Your task to perform on an android device: uninstall "Google Chat" Image 0: 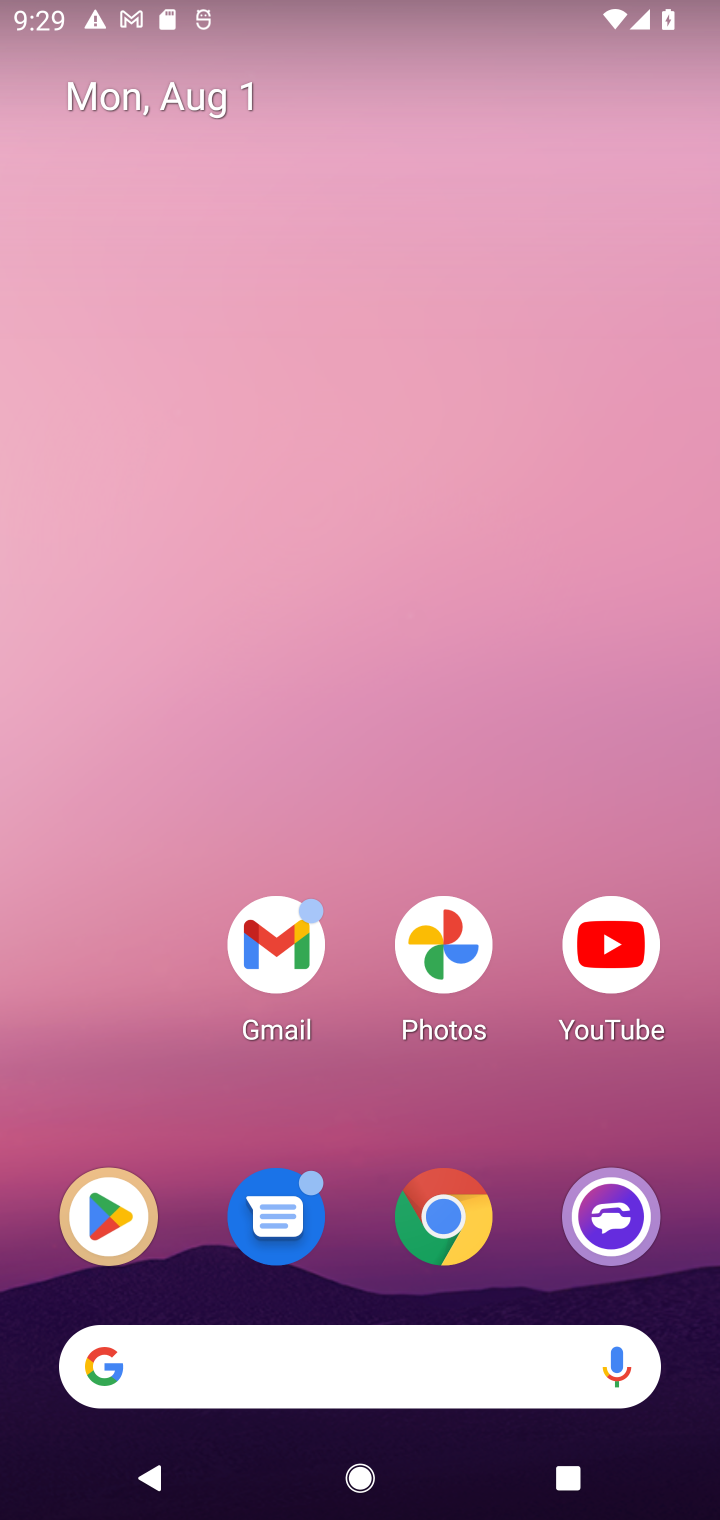
Step 0: press home button
Your task to perform on an android device: uninstall "Google Chat" Image 1: 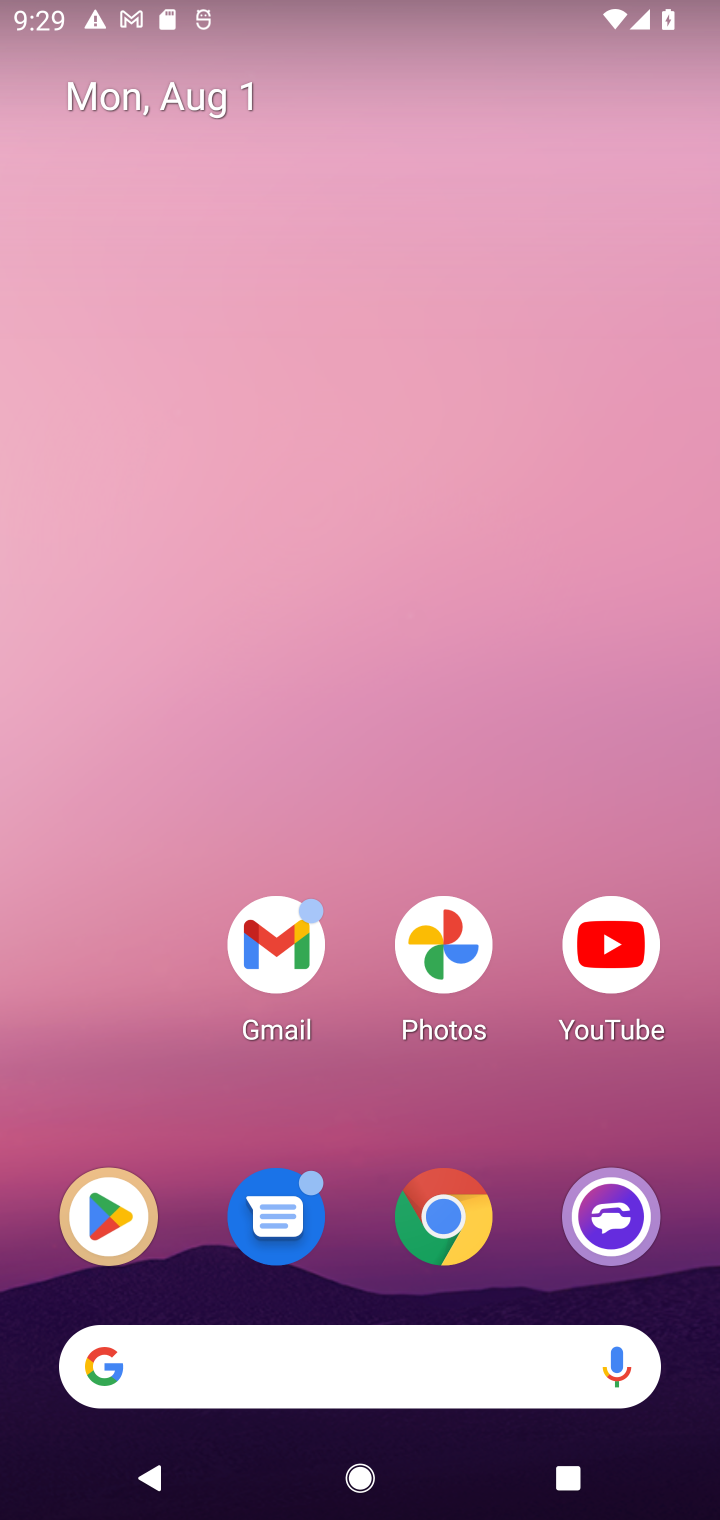
Step 1: click (129, 1234)
Your task to perform on an android device: uninstall "Google Chat" Image 2: 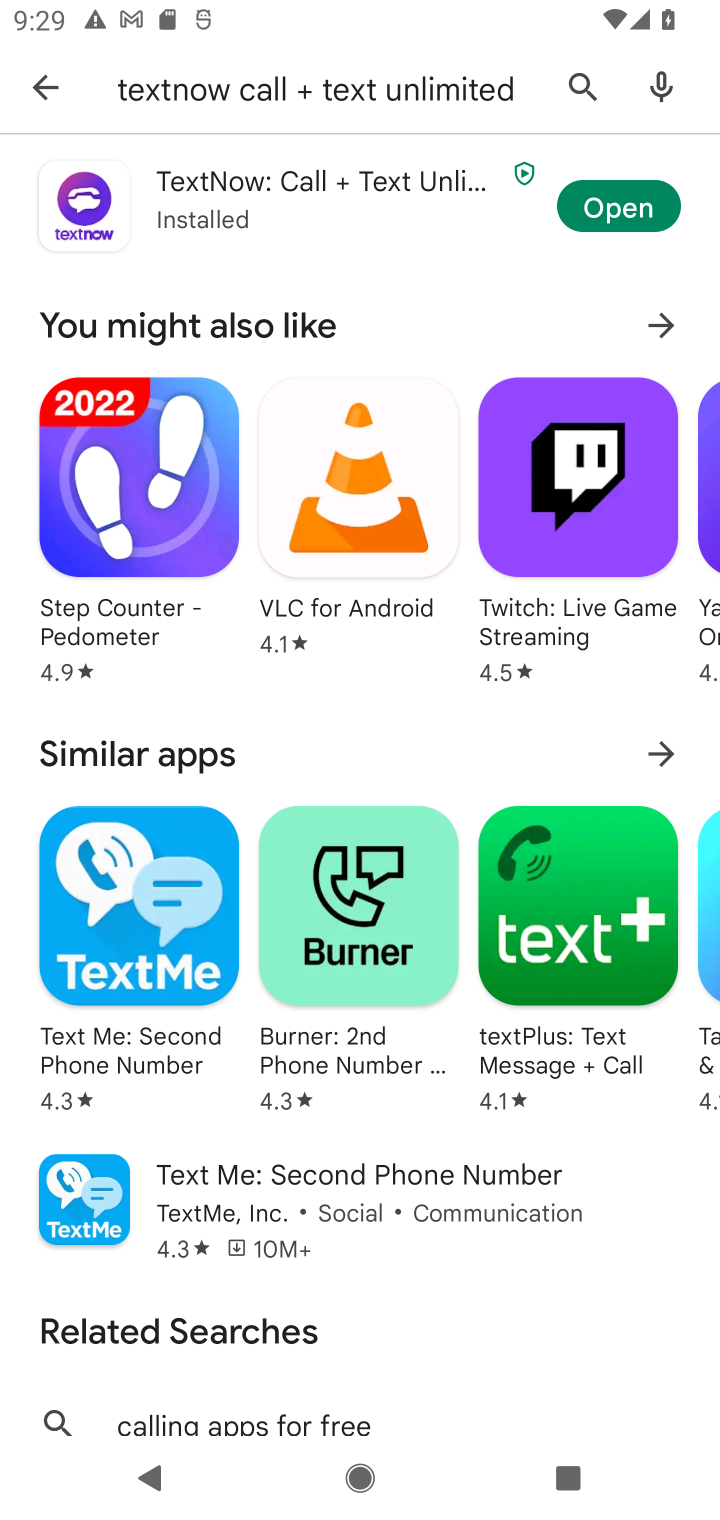
Step 2: click (584, 75)
Your task to perform on an android device: uninstall "Google Chat" Image 3: 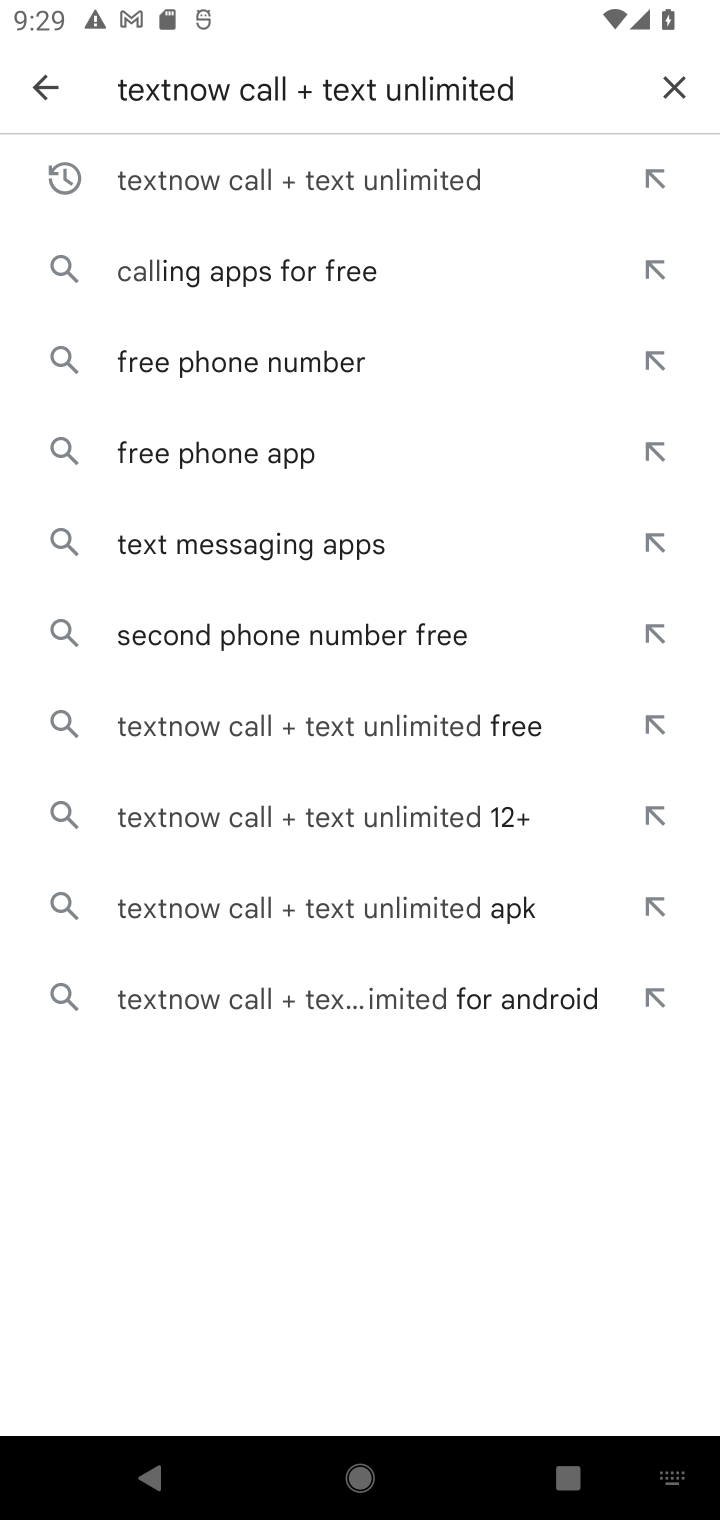
Step 3: click (675, 93)
Your task to perform on an android device: uninstall "Google Chat" Image 4: 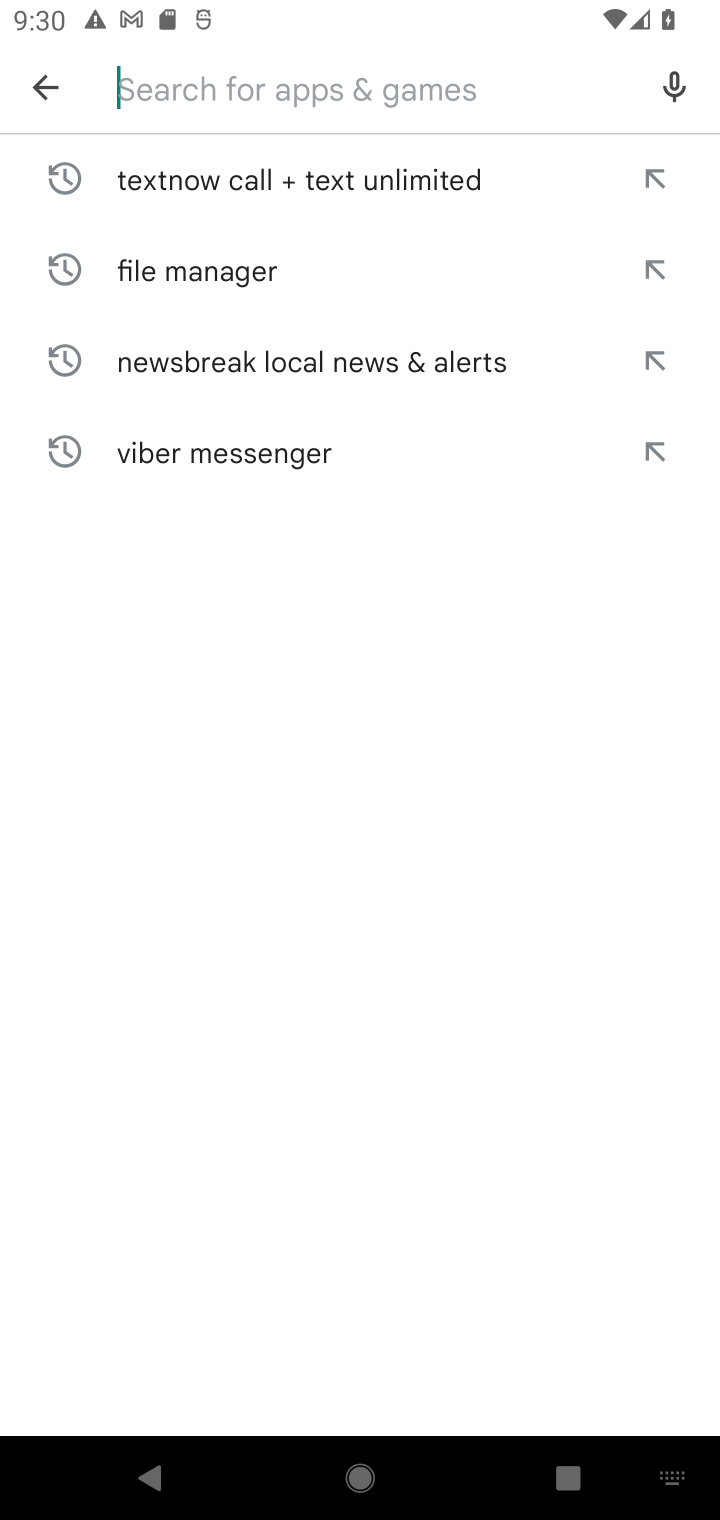
Step 4: type "Google Chat"
Your task to perform on an android device: uninstall "Google Chat" Image 5: 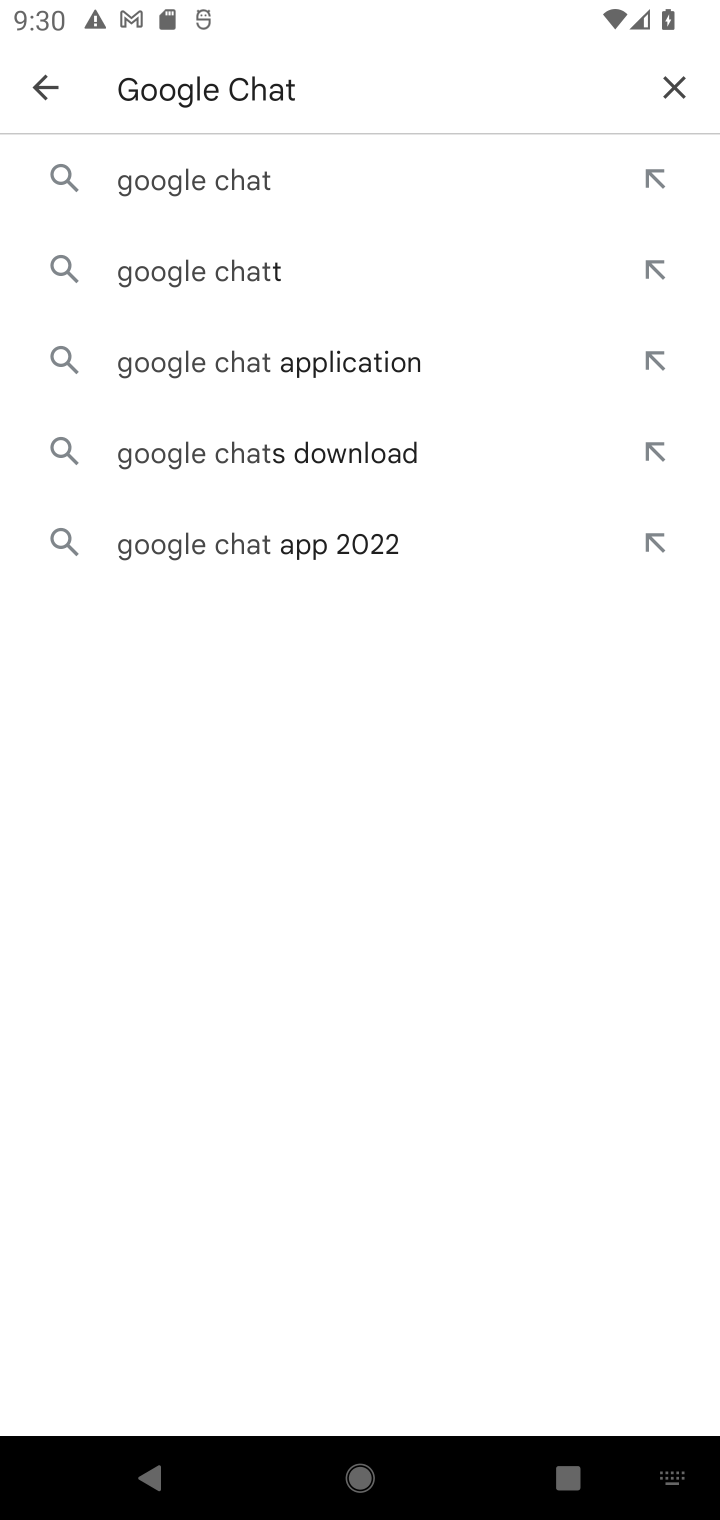
Step 5: click (150, 195)
Your task to perform on an android device: uninstall "Google Chat" Image 6: 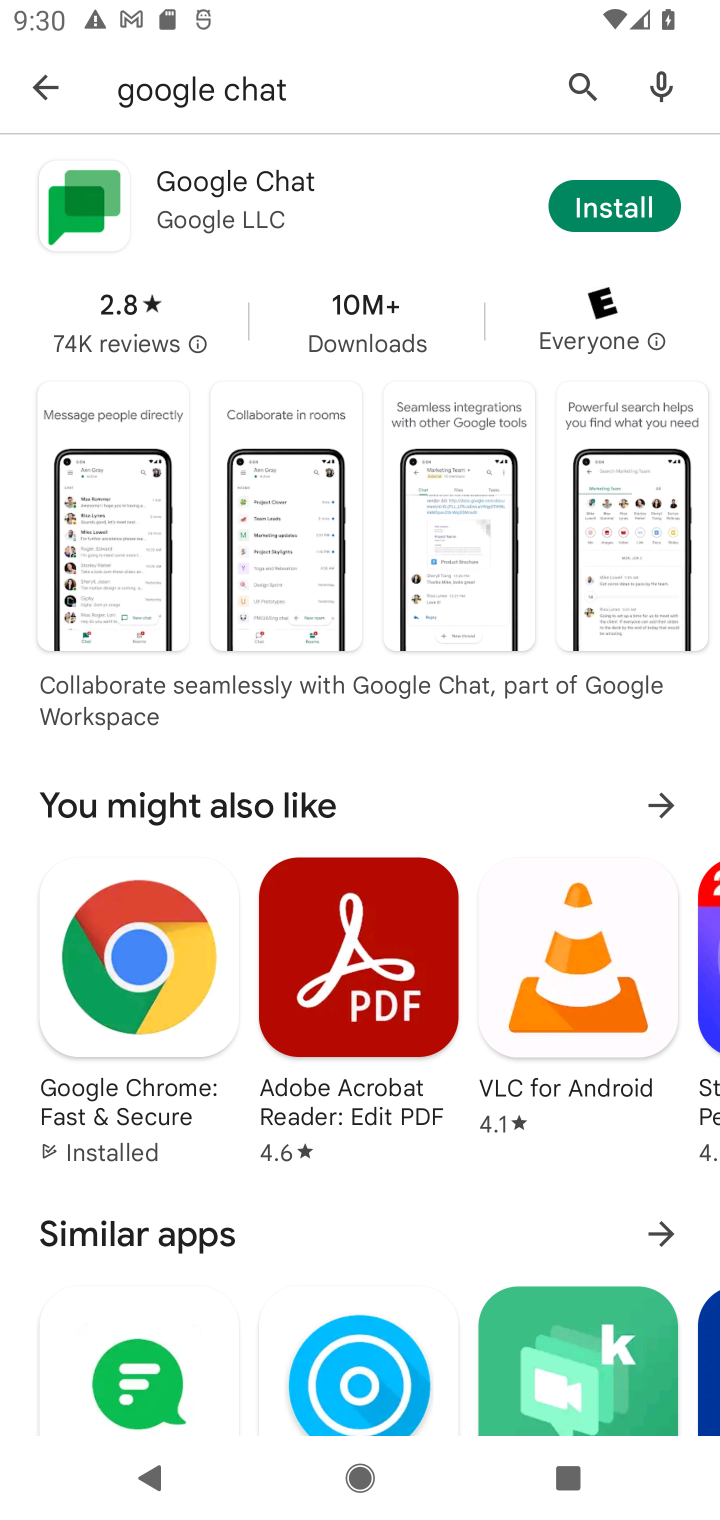
Step 6: task complete